Your task to perform on an android device: Find the nearest grocery store Image 0: 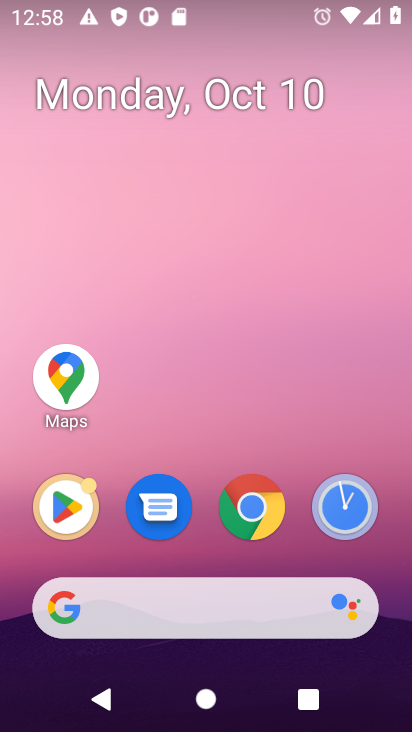
Step 0: press home button
Your task to perform on an android device: Find the nearest grocery store Image 1: 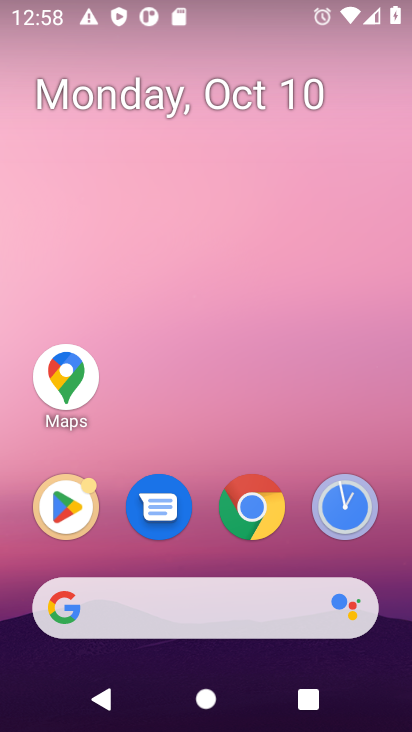
Step 1: click (245, 605)
Your task to perform on an android device: Find the nearest grocery store Image 2: 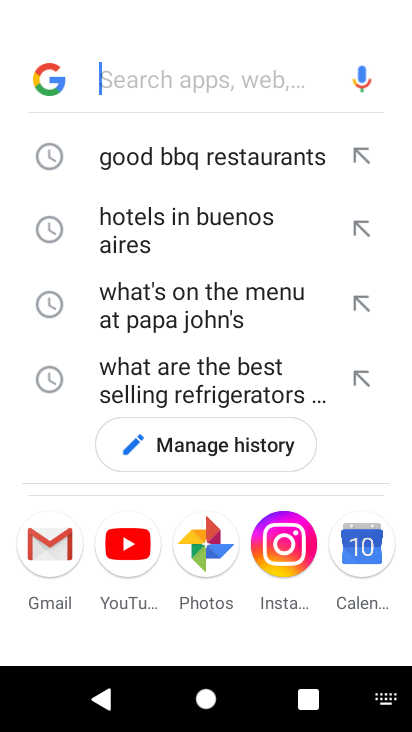
Step 2: type "Find the nearest grocery store"
Your task to perform on an android device: Find the nearest grocery store Image 3: 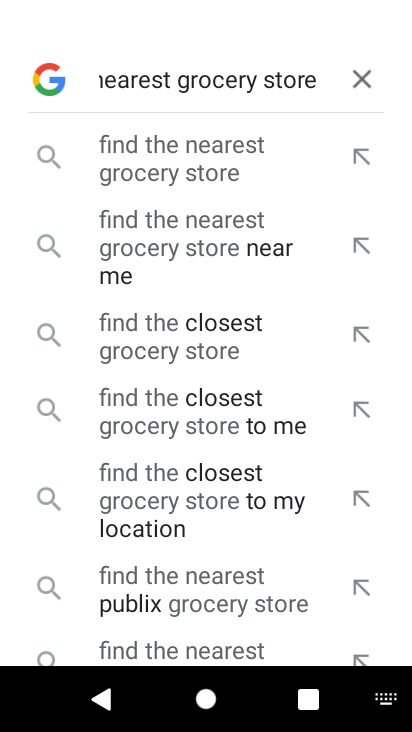
Step 3: press enter
Your task to perform on an android device: Find the nearest grocery store Image 4: 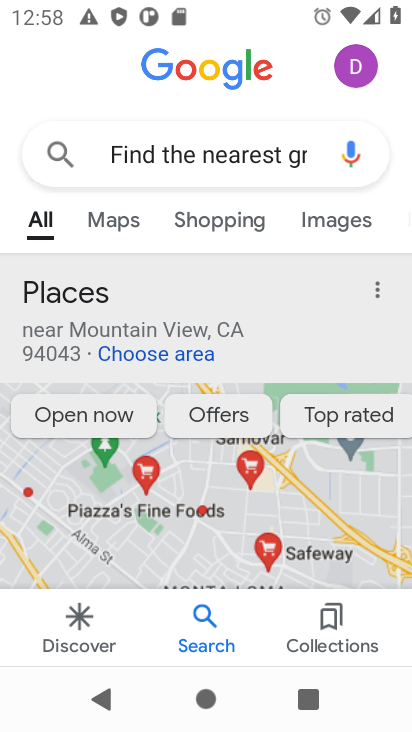
Step 4: task complete